Your task to perform on an android device: Go to Android settings Image 0: 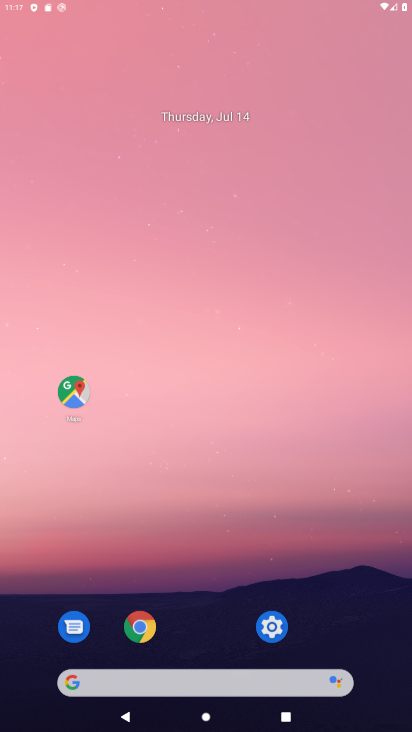
Step 0: press home button
Your task to perform on an android device: Go to Android settings Image 1: 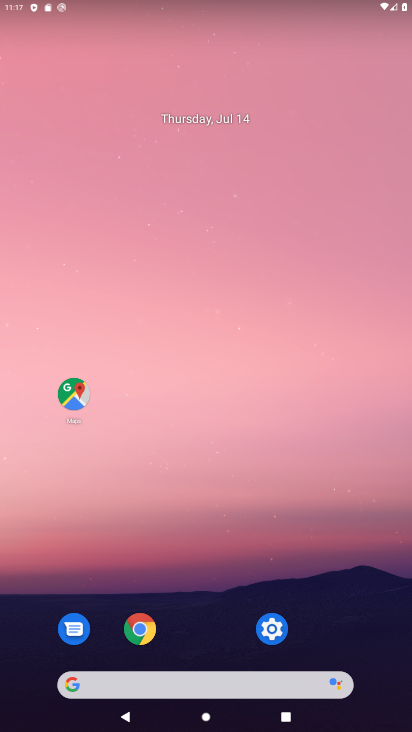
Step 1: click (140, 618)
Your task to perform on an android device: Go to Android settings Image 2: 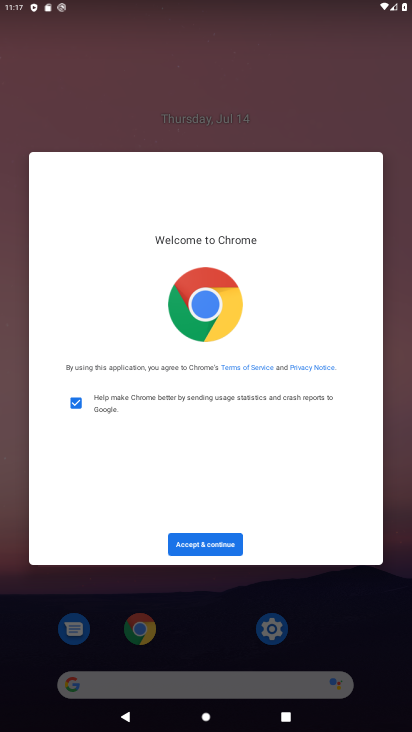
Step 2: press home button
Your task to perform on an android device: Go to Android settings Image 3: 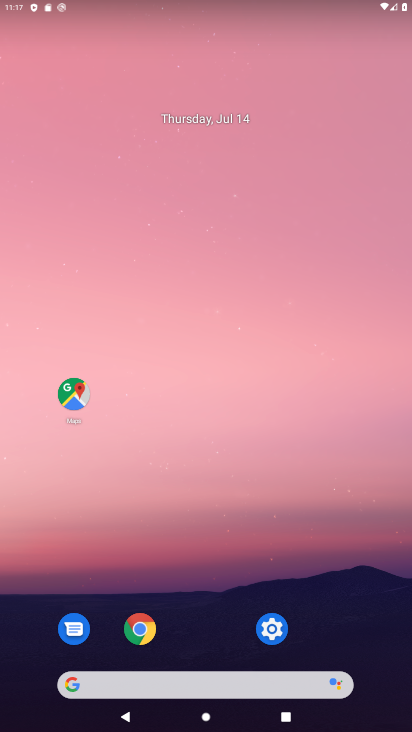
Step 3: click (272, 627)
Your task to perform on an android device: Go to Android settings Image 4: 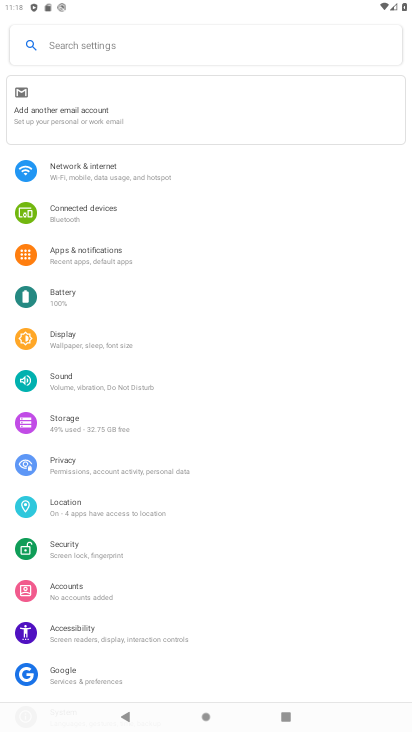
Step 4: click (106, 28)
Your task to perform on an android device: Go to Android settings Image 5: 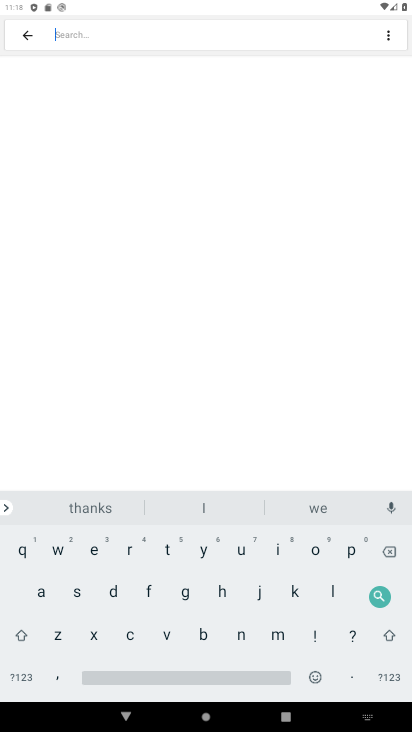
Step 5: click (42, 592)
Your task to perform on an android device: Go to Android settings Image 6: 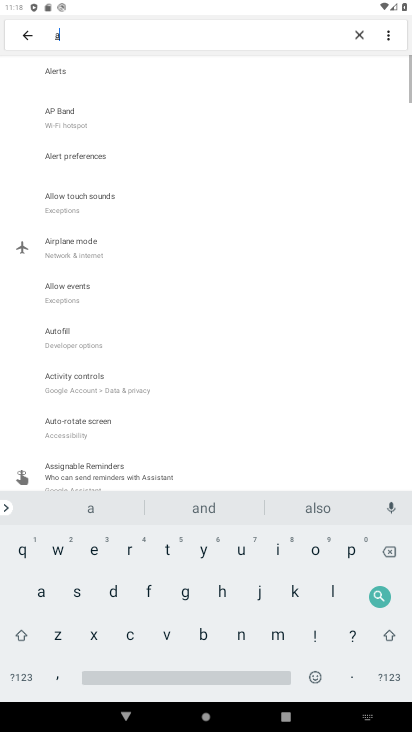
Step 6: click (246, 635)
Your task to perform on an android device: Go to Android settings Image 7: 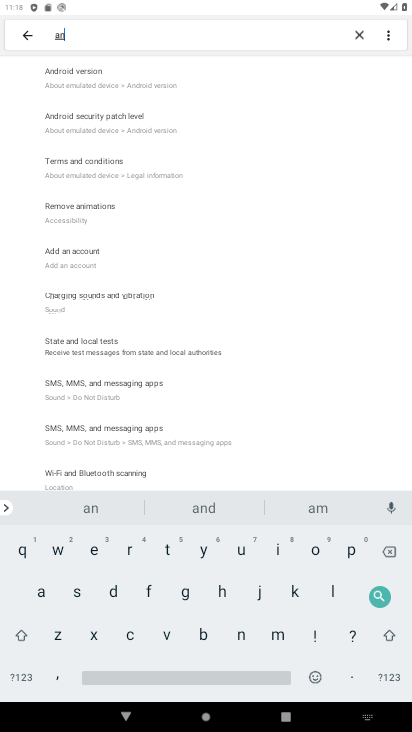
Step 7: click (100, 71)
Your task to perform on an android device: Go to Android settings Image 8: 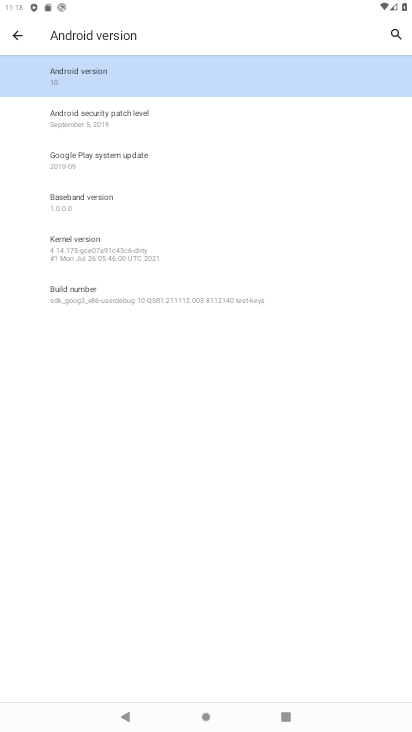
Step 8: click (100, 71)
Your task to perform on an android device: Go to Android settings Image 9: 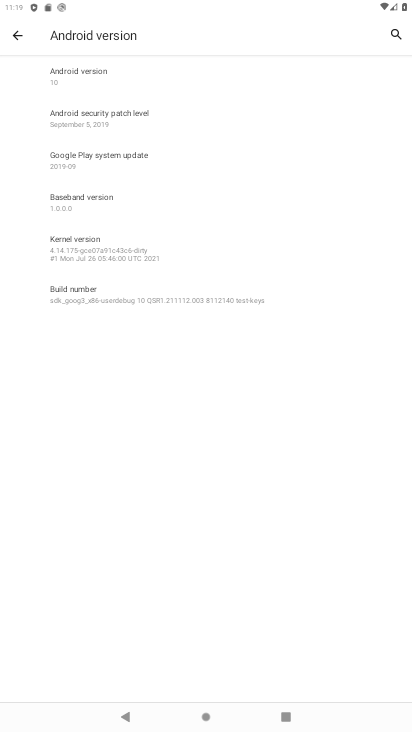
Step 9: task complete